Your task to perform on an android device: show emergency info Image 0: 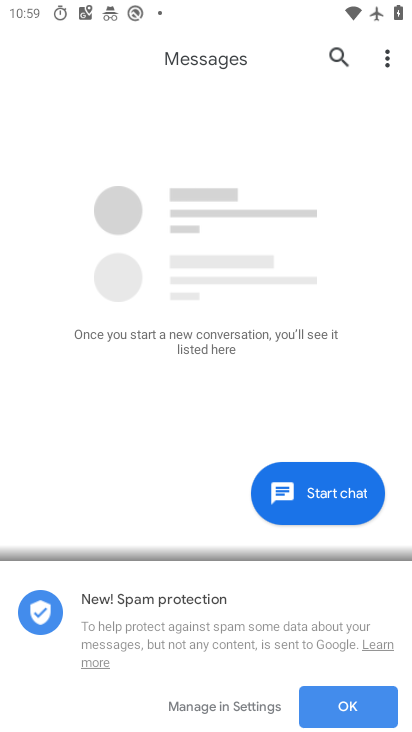
Step 0: drag from (330, 596) to (194, 186)
Your task to perform on an android device: show emergency info Image 1: 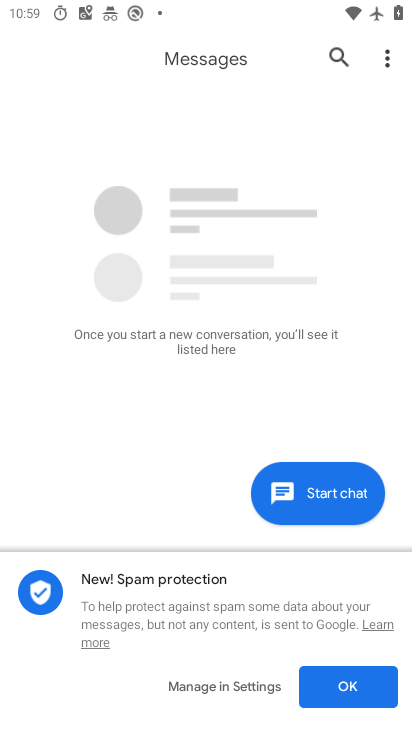
Step 1: press back button
Your task to perform on an android device: show emergency info Image 2: 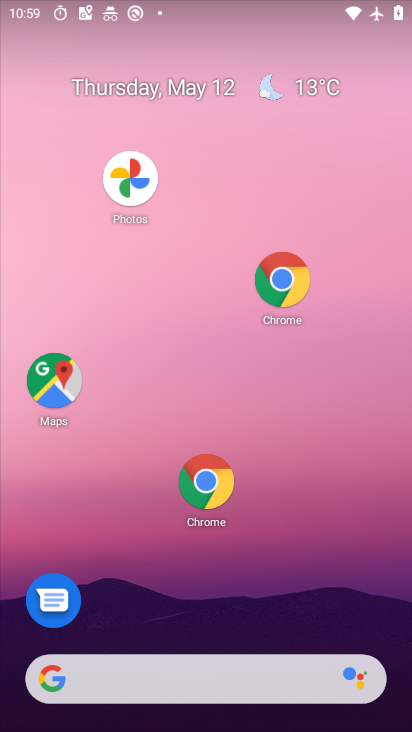
Step 2: drag from (345, 688) to (35, 86)
Your task to perform on an android device: show emergency info Image 3: 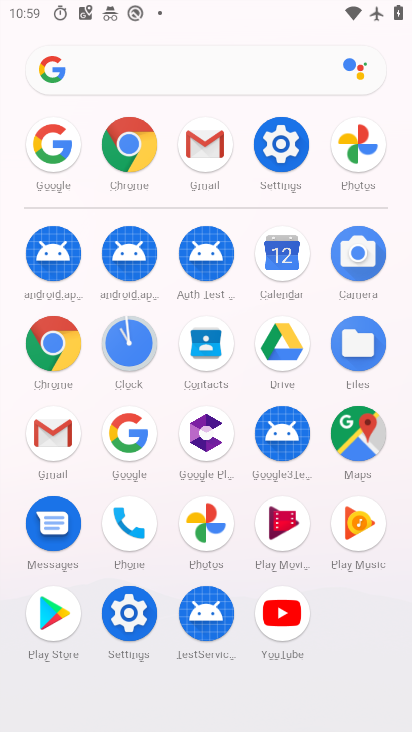
Step 3: click (133, 622)
Your task to perform on an android device: show emergency info Image 4: 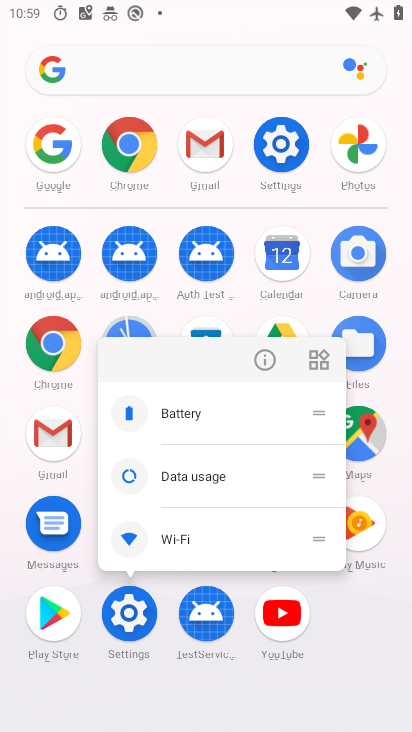
Step 4: click (135, 614)
Your task to perform on an android device: show emergency info Image 5: 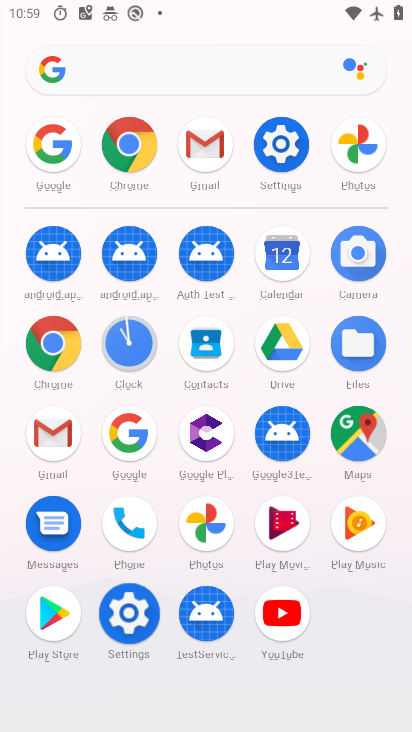
Step 5: click (130, 599)
Your task to perform on an android device: show emergency info Image 6: 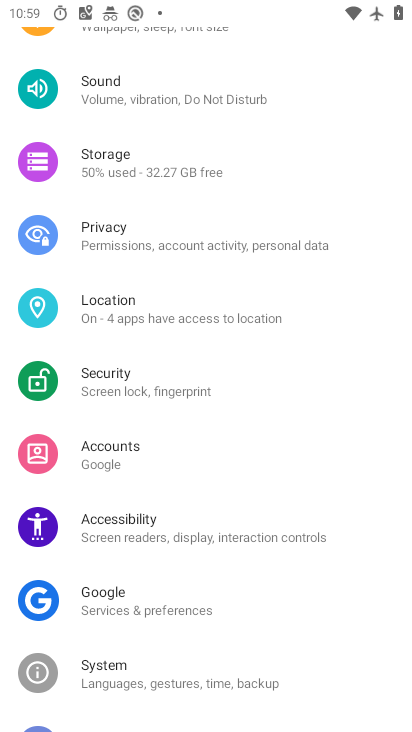
Step 6: click (122, 610)
Your task to perform on an android device: show emergency info Image 7: 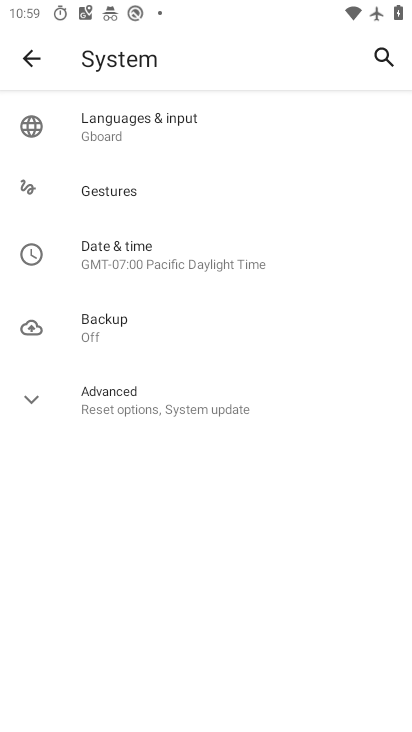
Step 7: click (22, 64)
Your task to perform on an android device: show emergency info Image 8: 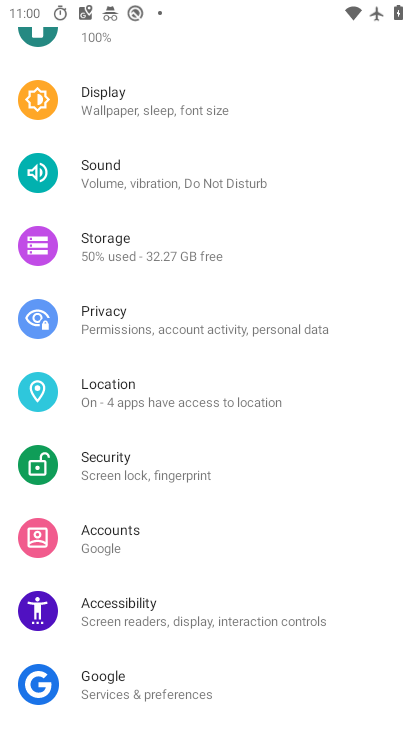
Step 8: drag from (147, 658) to (45, 147)
Your task to perform on an android device: show emergency info Image 9: 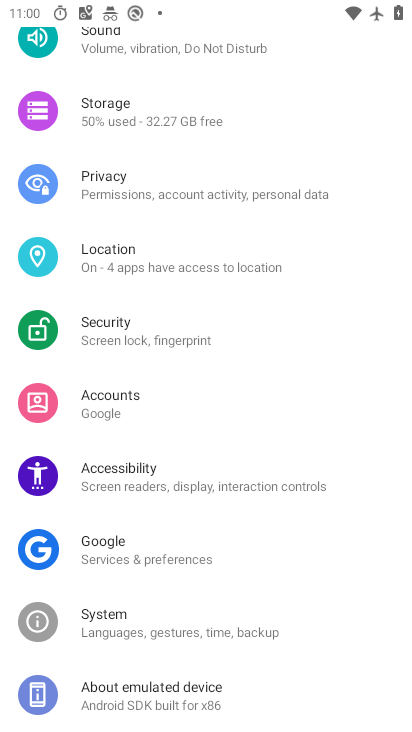
Step 9: drag from (183, 515) to (134, 186)
Your task to perform on an android device: show emergency info Image 10: 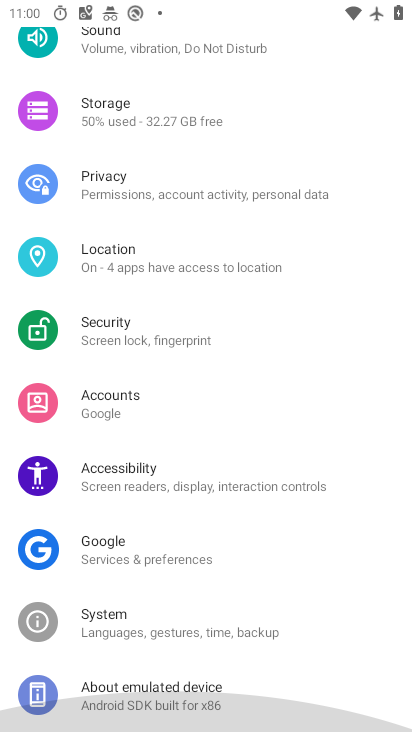
Step 10: drag from (236, 426) to (314, 29)
Your task to perform on an android device: show emergency info Image 11: 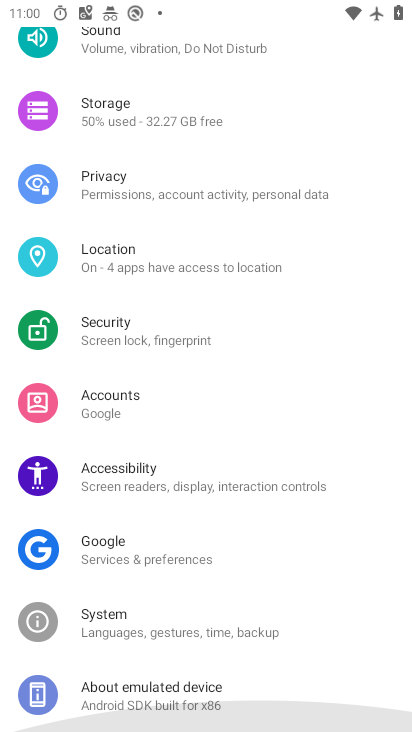
Step 11: drag from (195, 490) to (195, 125)
Your task to perform on an android device: show emergency info Image 12: 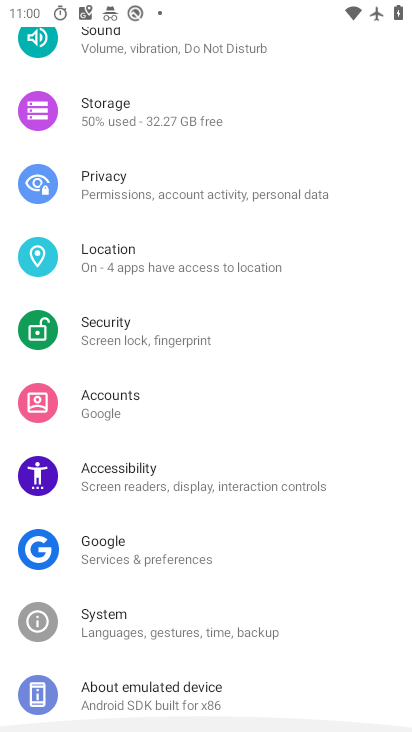
Step 12: click (162, 695)
Your task to perform on an android device: show emergency info Image 13: 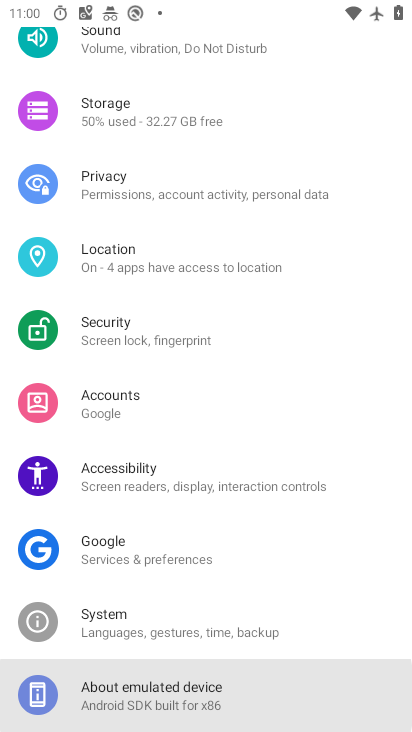
Step 13: click (159, 695)
Your task to perform on an android device: show emergency info Image 14: 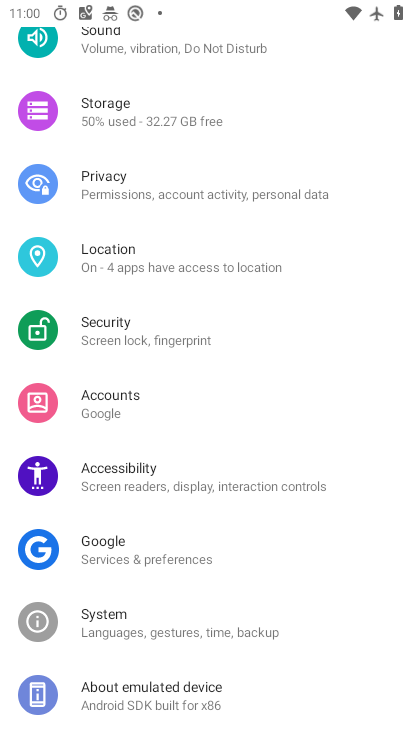
Step 14: click (153, 683)
Your task to perform on an android device: show emergency info Image 15: 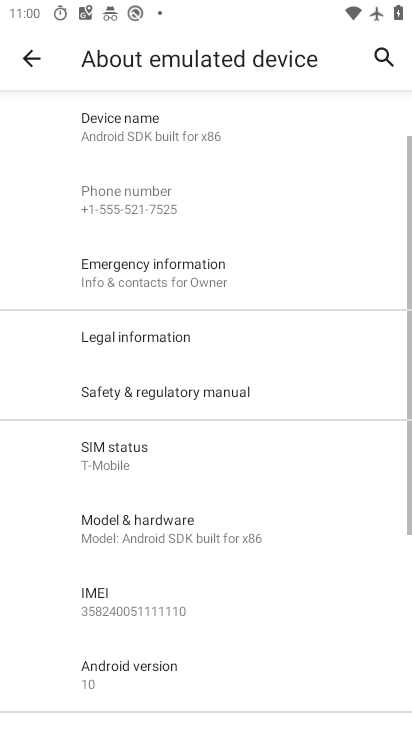
Step 15: click (130, 686)
Your task to perform on an android device: show emergency info Image 16: 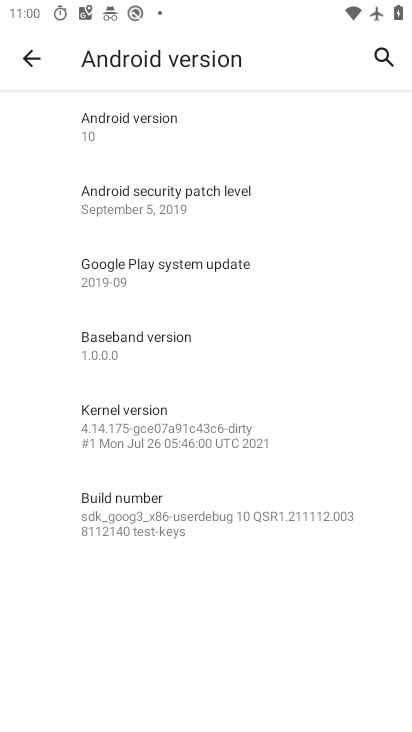
Step 16: task complete